Your task to perform on an android device: Open Yahoo.com Image 0: 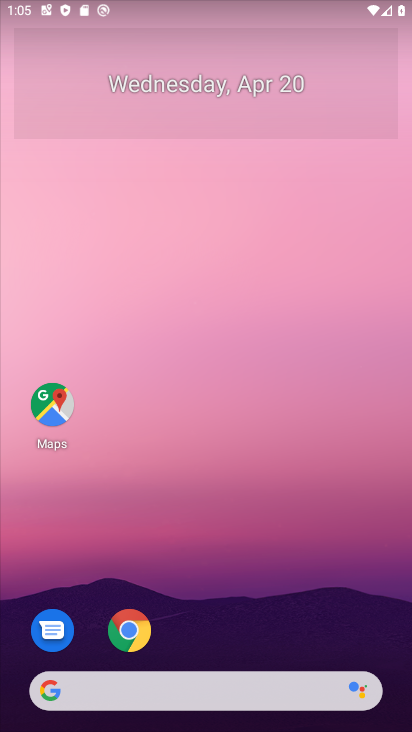
Step 0: drag from (343, 601) to (310, 151)
Your task to perform on an android device: Open Yahoo.com Image 1: 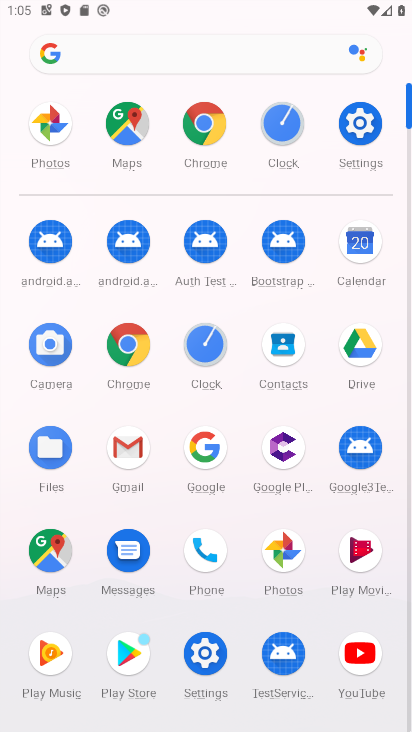
Step 1: click (212, 129)
Your task to perform on an android device: Open Yahoo.com Image 2: 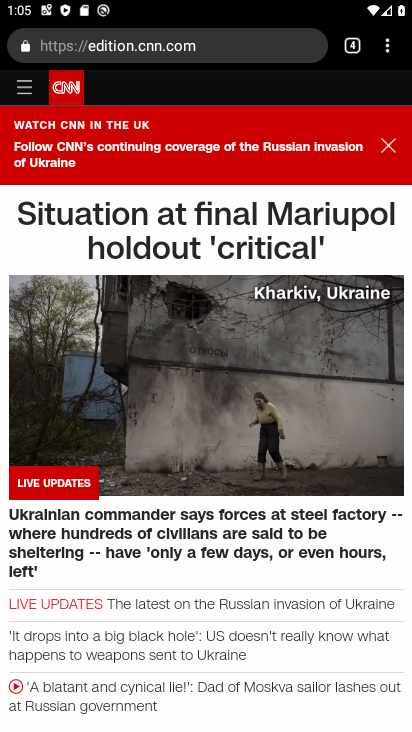
Step 2: click (341, 46)
Your task to perform on an android device: Open Yahoo.com Image 3: 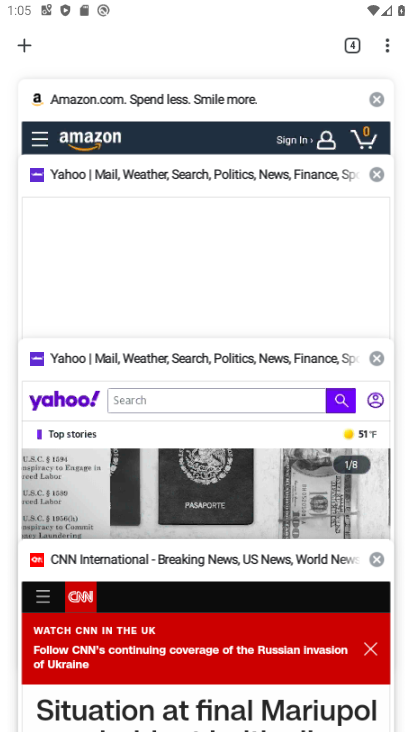
Step 3: click (24, 39)
Your task to perform on an android device: Open Yahoo.com Image 4: 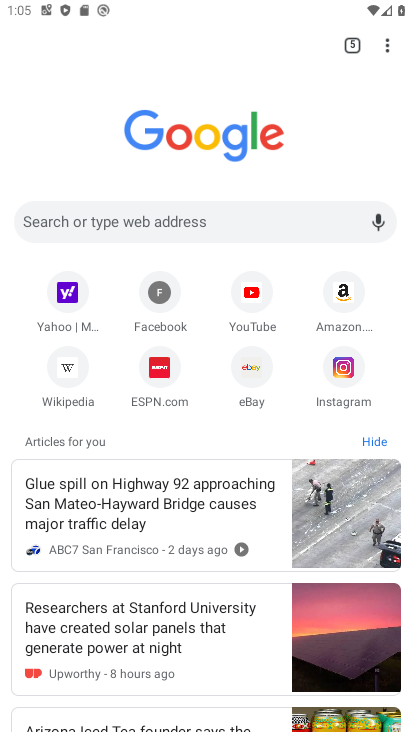
Step 4: click (228, 217)
Your task to perform on an android device: Open Yahoo.com Image 5: 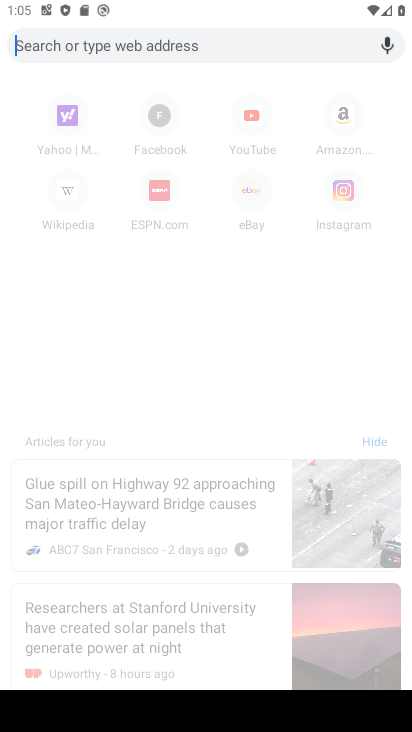
Step 5: type "yahoo.com"
Your task to perform on an android device: Open Yahoo.com Image 6: 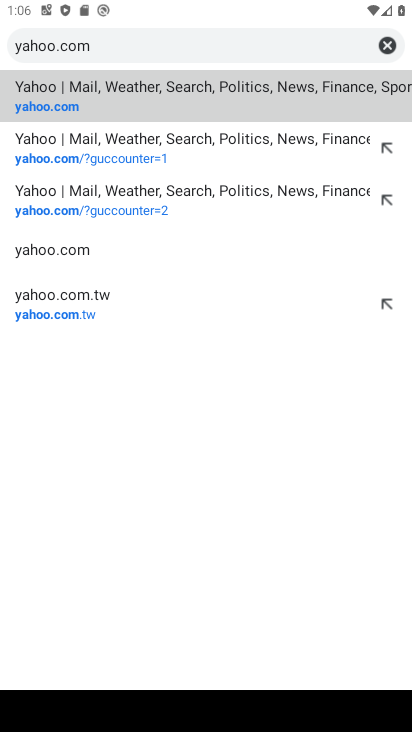
Step 6: click (158, 91)
Your task to perform on an android device: Open Yahoo.com Image 7: 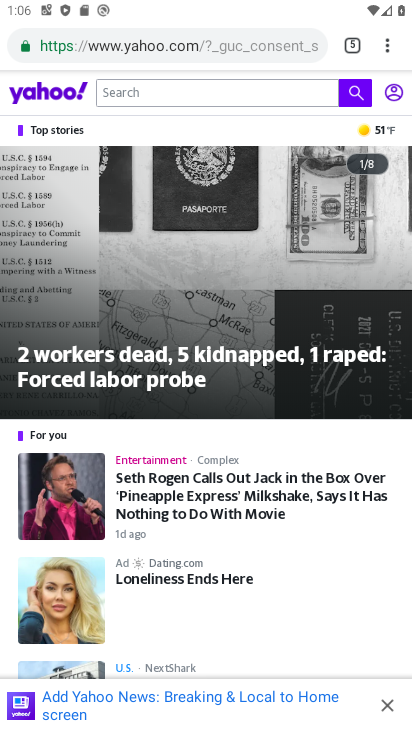
Step 7: task complete